Your task to perform on an android device: Clear all items from cart on newegg. Add "logitech g pro" to the cart on newegg, then select checkout. Image 0: 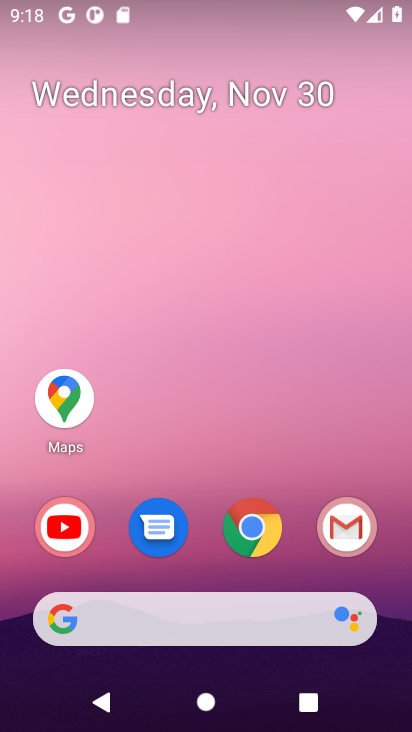
Step 0: click (269, 522)
Your task to perform on an android device: Clear all items from cart on newegg. Add "logitech g pro" to the cart on newegg, then select checkout. Image 1: 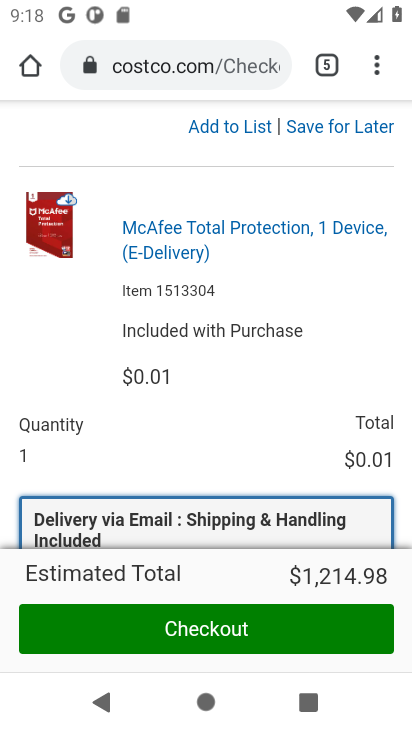
Step 1: click (215, 76)
Your task to perform on an android device: Clear all items from cart on newegg. Add "logitech g pro" to the cart on newegg, then select checkout. Image 2: 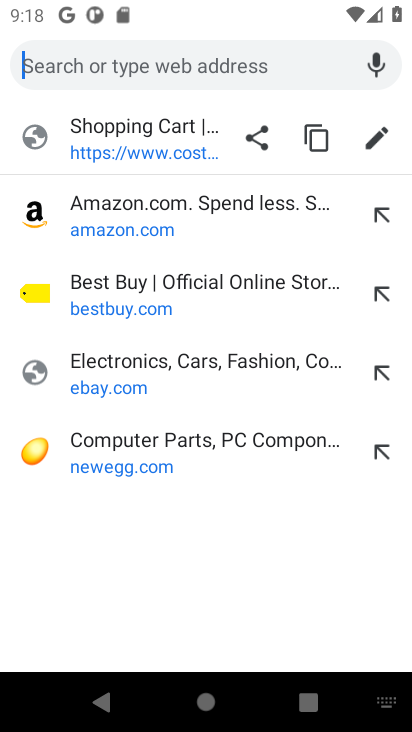
Step 2: click (168, 445)
Your task to perform on an android device: Clear all items from cart on newegg. Add "logitech g pro" to the cart on newegg, then select checkout. Image 3: 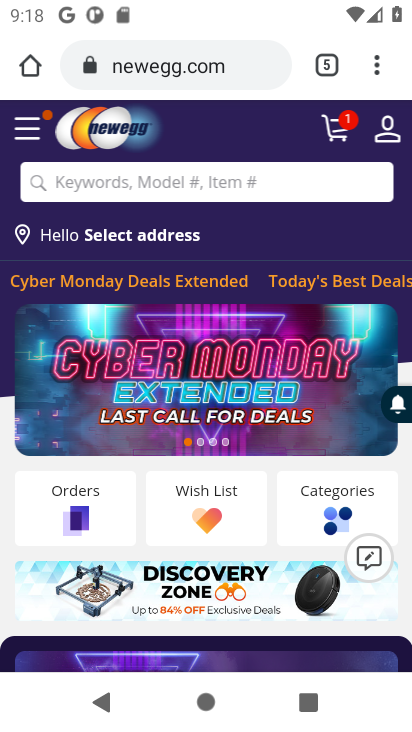
Step 3: click (334, 138)
Your task to perform on an android device: Clear all items from cart on newegg. Add "logitech g pro" to the cart on newegg, then select checkout. Image 4: 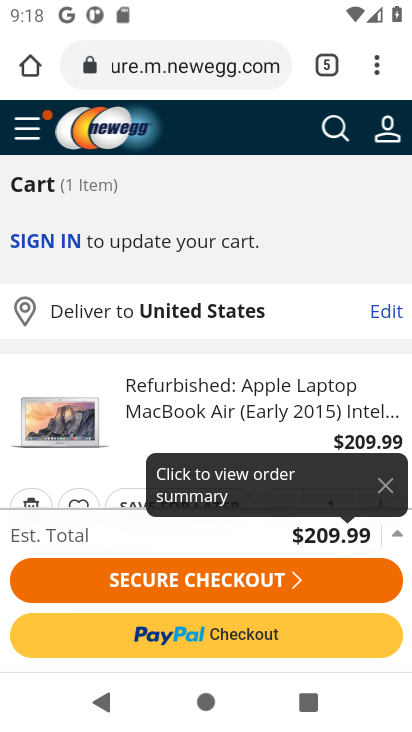
Step 4: drag from (313, 408) to (326, 102)
Your task to perform on an android device: Clear all items from cart on newegg. Add "logitech g pro" to the cart on newegg, then select checkout. Image 5: 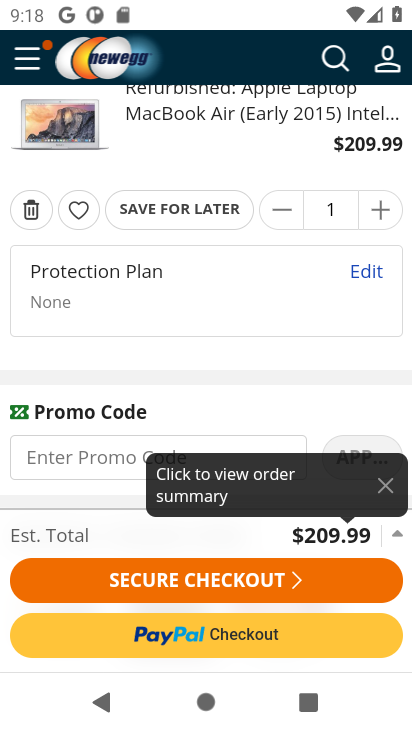
Step 5: click (383, 485)
Your task to perform on an android device: Clear all items from cart on newegg. Add "logitech g pro" to the cart on newegg, then select checkout. Image 6: 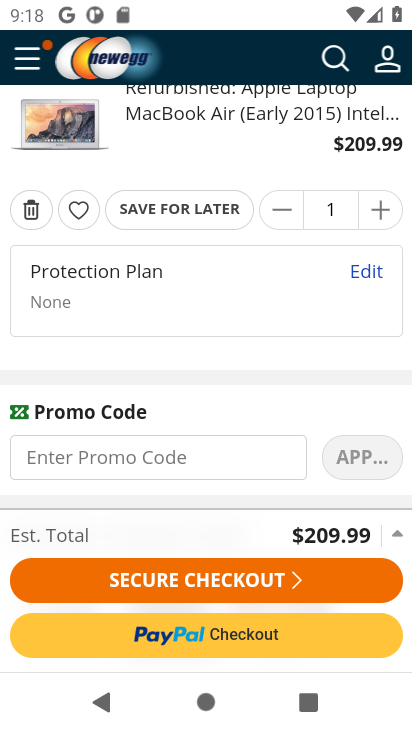
Step 6: click (21, 208)
Your task to perform on an android device: Clear all items from cart on newegg. Add "logitech g pro" to the cart on newegg, then select checkout. Image 7: 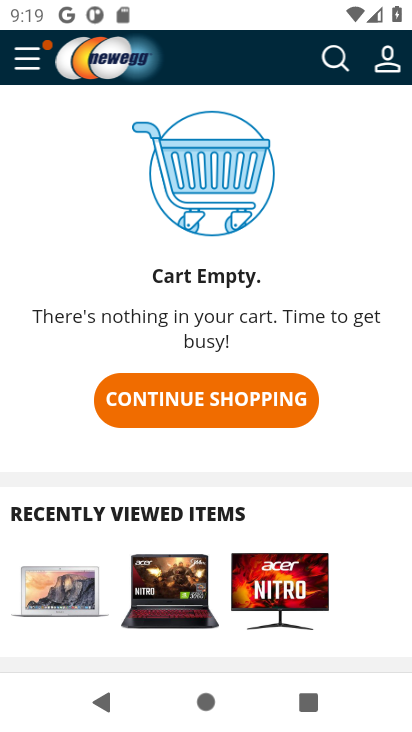
Step 7: click (325, 59)
Your task to perform on an android device: Clear all items from cart on newegg. Add "logitech g pro" to the cart on newegg, then select checkout. Image 8: 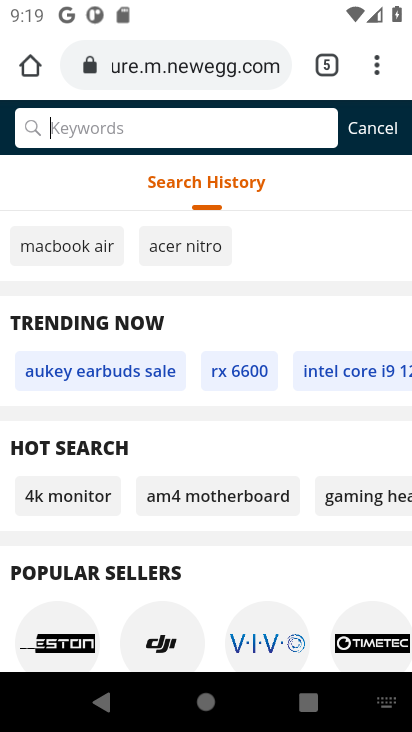
Step 8: type "logitech g pro"
Your task to perform on an android device: Clear all items from cart on newegg. Add "logitech g pro" to the cart on newegg, then select checkout. Image 9: 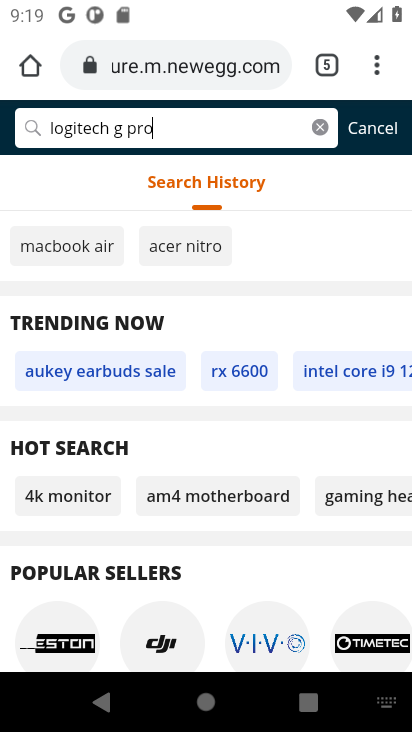
Step 9: press enter
Your task to perform on an android device: Clear all items from cart on newegg. Add "logitech g pro" to the cart on newegg, then select checkout. Image 10: 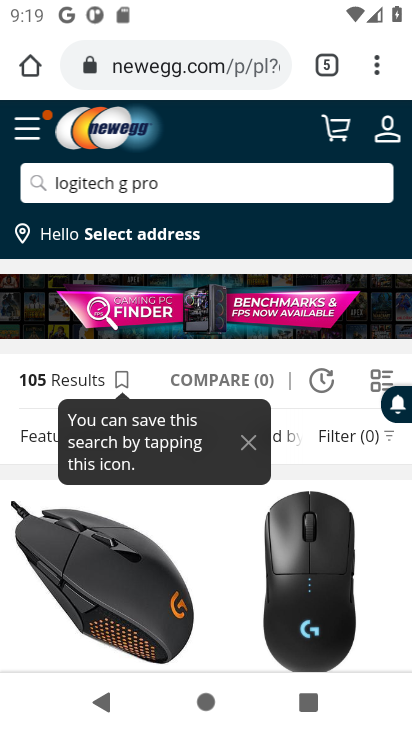
Step 10: drag from (237, 582) to (249, 228)
Your task to perform on an android device: Clear all items from cart on newegg. Add "logitech g pro" to the cart on newegg, then select checkout. Image 11: 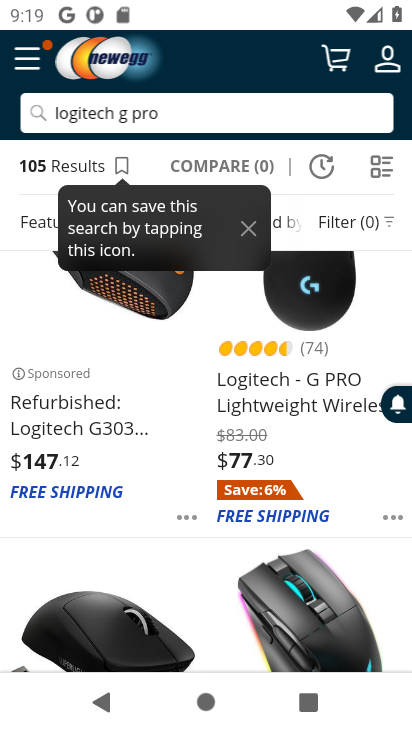
Step 11: click (316, 306)
Your task to perform on an android device: Clear all items from cart on newegg. Add "logitech g pro" to the cart on newegg, then select checkout. Image 12: 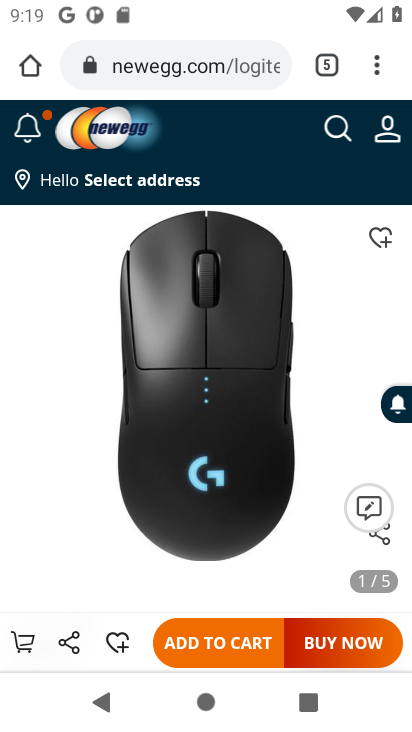
Step 12: click (232, 644)
Your task to perform on an android device: Clear all items from cart on newegg. Add "logitech g pro" to the cart on newegg, then select checkout. Image 13: 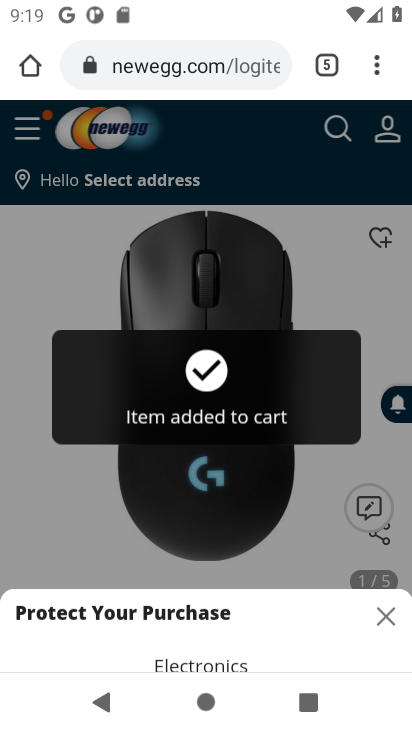
Step 13: click (18, 646)
Your task to perform on an android device: Clear all items from cart on newegg. Add "logitech g pro" to the cart on newegg, then select checkout. Image 14: 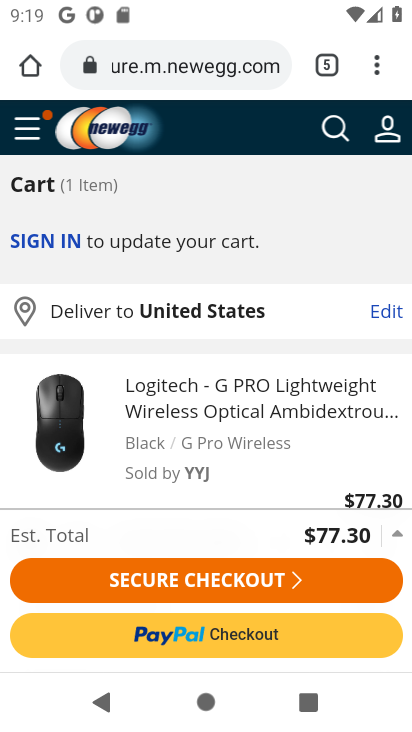
Step 14: click (230, 581)
Your task to perform on an android device: Clear all items from cart on newegg. Add "logitech g pro" to the cart on newegg, then select checkout. Image 15: 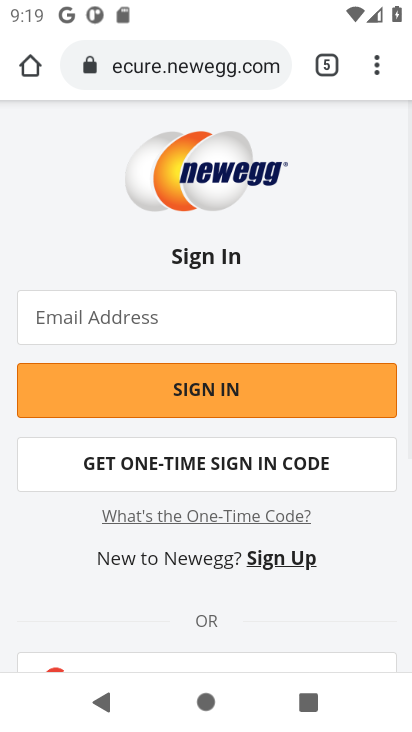
Step 15: task complete